Your task to perform on an android device: open the mobile data screen to see how much data has been used Image 0: 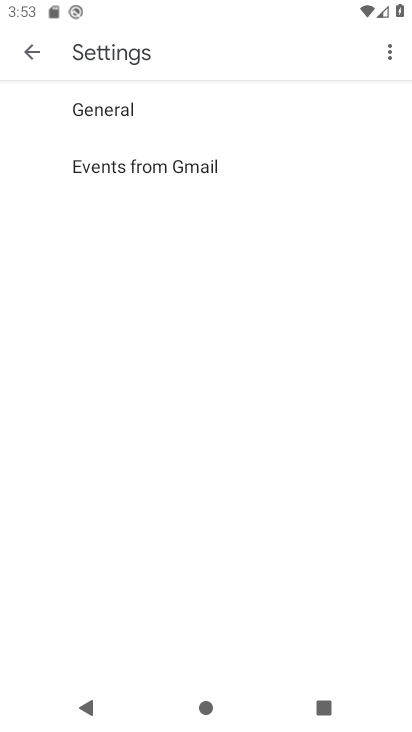
Step 0: press home button
Your task to perform on an android device: open the mobile data screen to see how much data has been used Image 1: 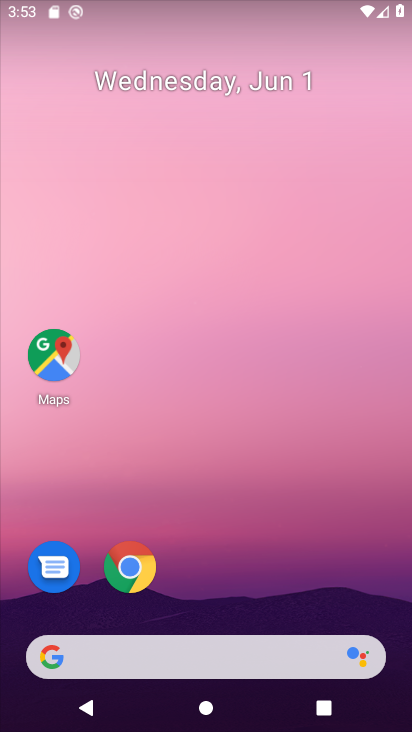
Step 1: drag from (248, 584) to (259, 8)
Your task to perform on an android device: open the mobile data screen to see how much data has been used Image 2: 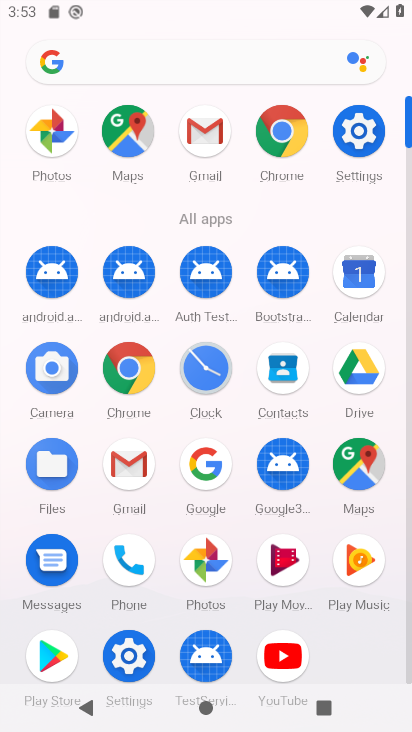
Step 2: click (358, 128)
Your task to perform on an android device: open the mobile data screen to see how much data has been used Image 3: 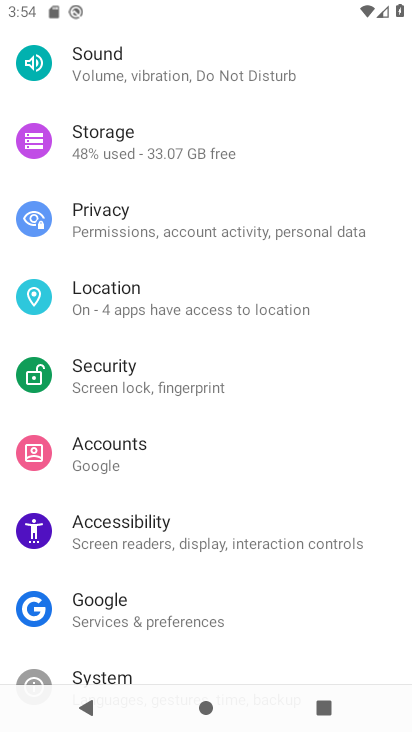
Step 3: drag from (155, 203) to (178, 396)
Your task to perform on an android device: open the mobile data screen to see how much data has been used Image 4: 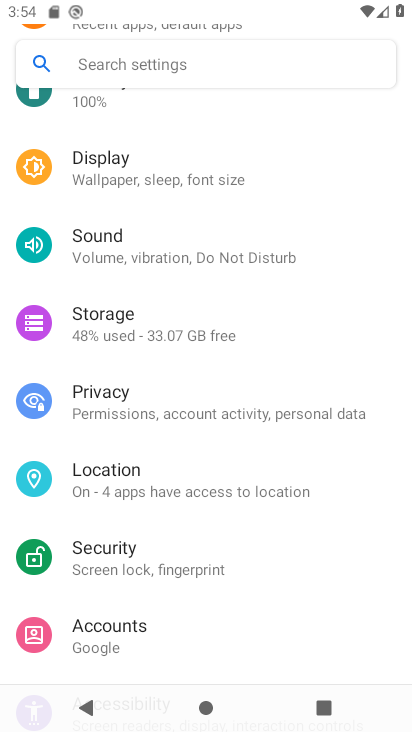
Step 4: drag from (150, 293) to (196, 402)
Your task to perform on an android device: open the mobile data screen to see how much data has been used Image 5: 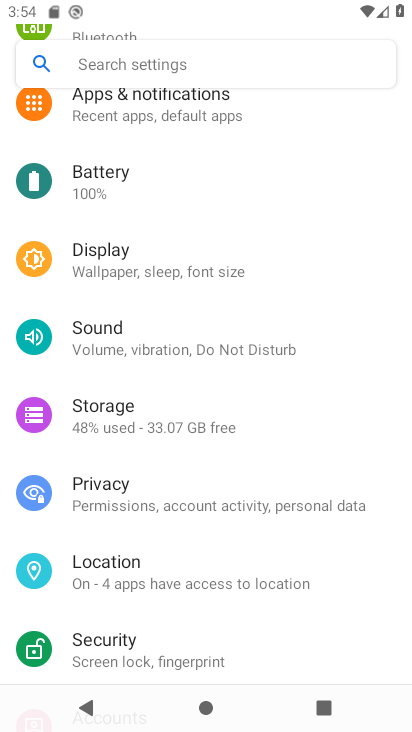
Step 5: drag from (168, 290) to (179, 428)
Your task to perform on an android device: open the mobile data screen to see how much data has been used Image 6: 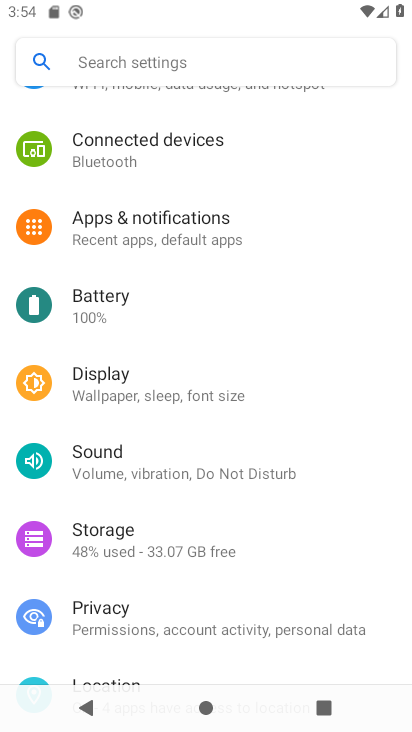
Step 6: drag from (149, 282) to (162, 383)
Your task to perform on an android device: open the mobile data screen to see how much data has been used Image 7: 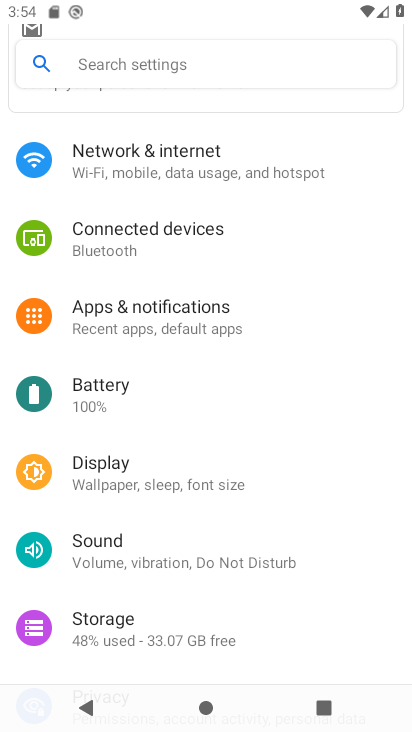
Step 7: click (130, 171)
Your task to perform on an android device: open the mobile data screen to see how much data has been used Image 8: 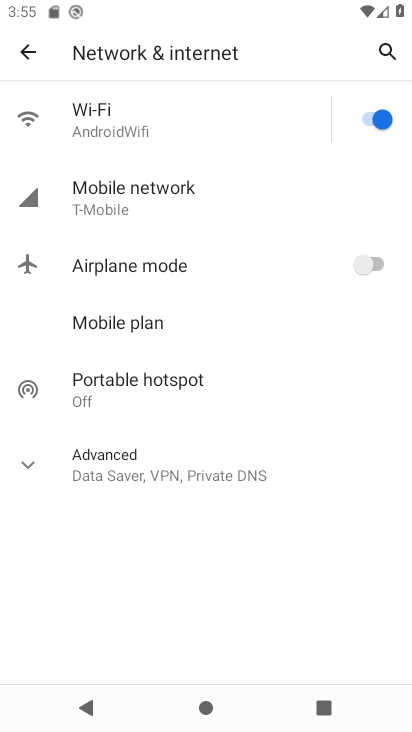
Step 8: click (107, 210)
Your task to perform on an android device: open the mobile data screen to see how much data has been used Image 9: 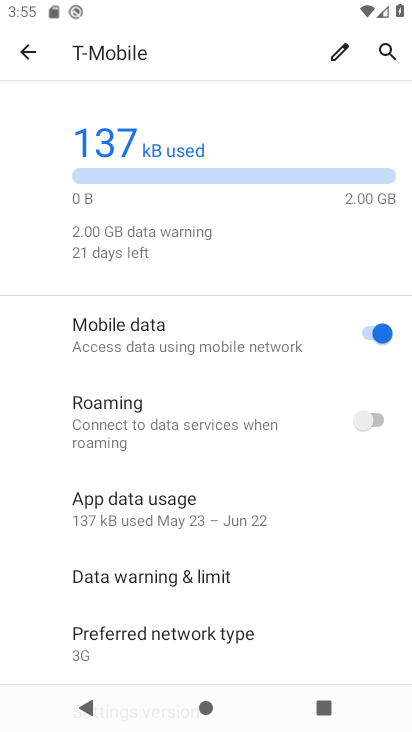
Step 9: click (138, 510)
Your task to perform on an android device: open the mobile data screen to see how much data has been used Image 10: 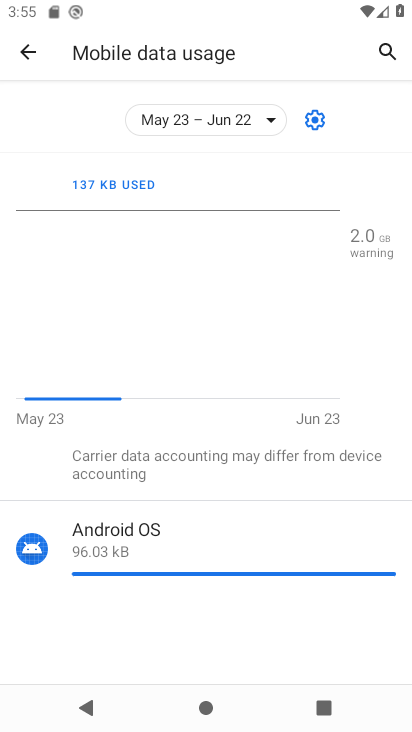
Step 10: task complete